Your task to perform on an android device: add a contact in the contacts app Image 0: 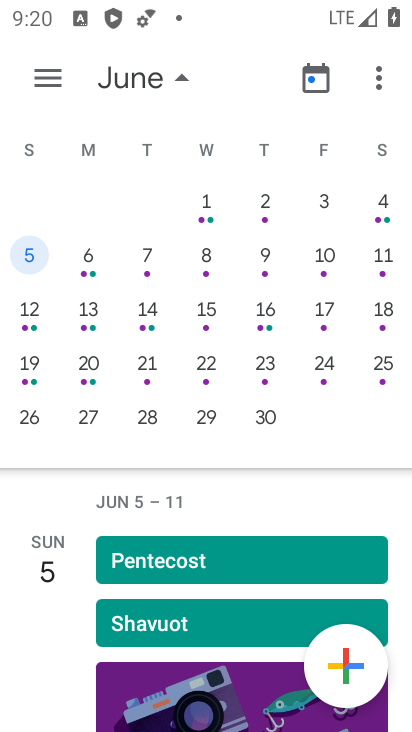
Step 0: press home button
Your task to perform on an android device: add a contact in the contacts app Image 1: 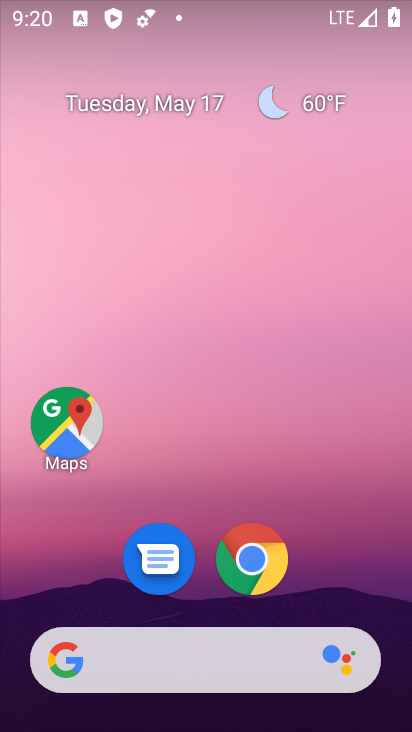
Step 1: drag from (201, 597) to (219, 223)
Your task to perform on an android device: add a contact in the contacts app Image 2: 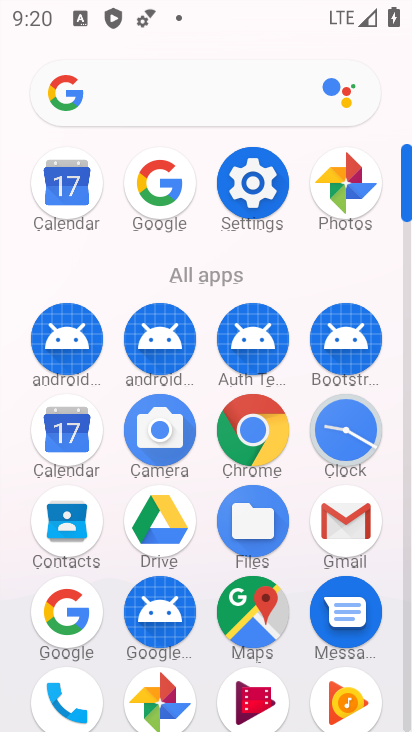
Step 2: click (57, 516)
Your task to perform on an android device: add a contact in the contacts app Image 3: 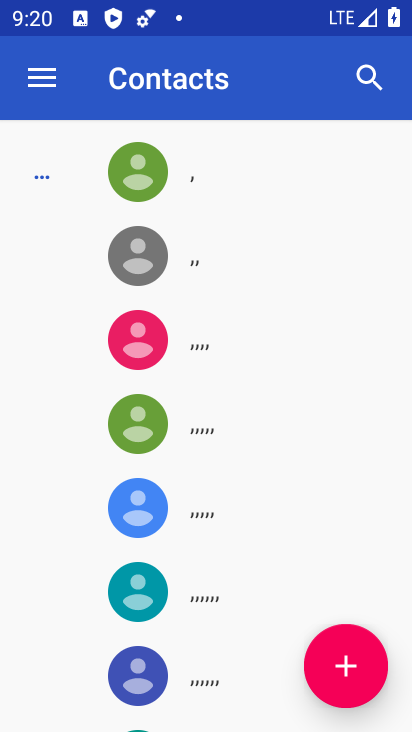
Step 3: click (324, 681)
Your task to perform on an android device: add a contact in the contacts app Image 4: 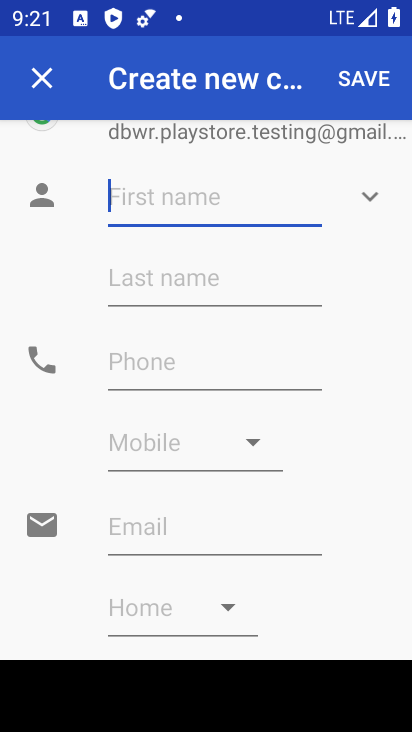
Step 4: type "jvuids"
Your task to perform on an android device: add a contact in the contacts app Image 5: 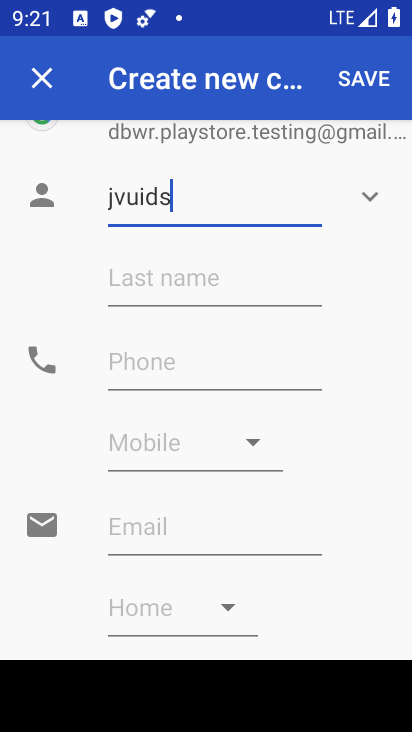
Step 5: click (239, 381)
Your task to perform on an android device: add a contact in the contacts app Image 6: 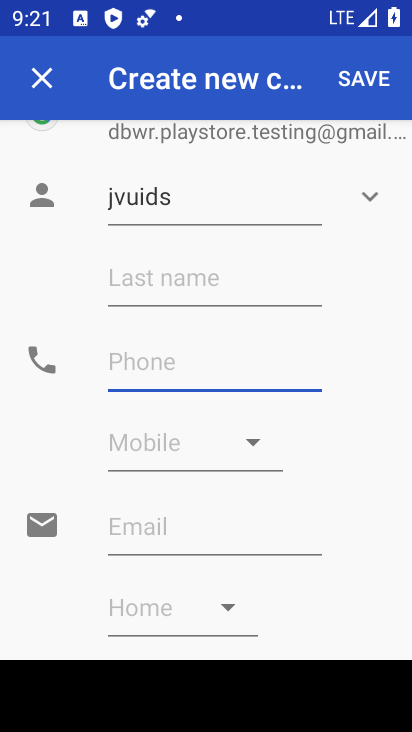
Step 6: type "94789438946"
Your task to perform on an android device: add a contact in the contacts app Image 7: 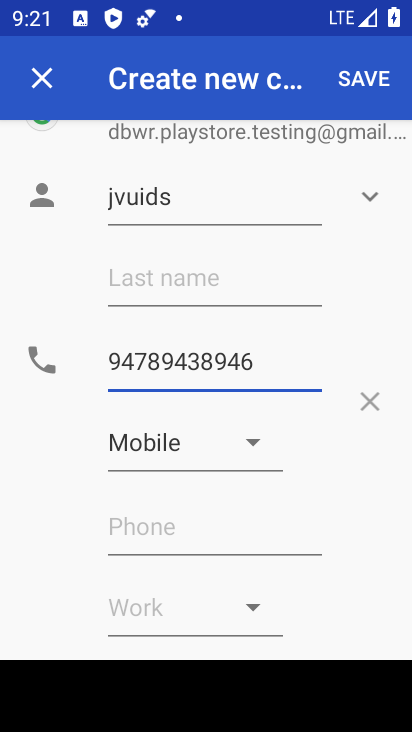
Step 7: click (369, 71)
Your task to perform on an android device: add a contact in the contacts app Image 8: 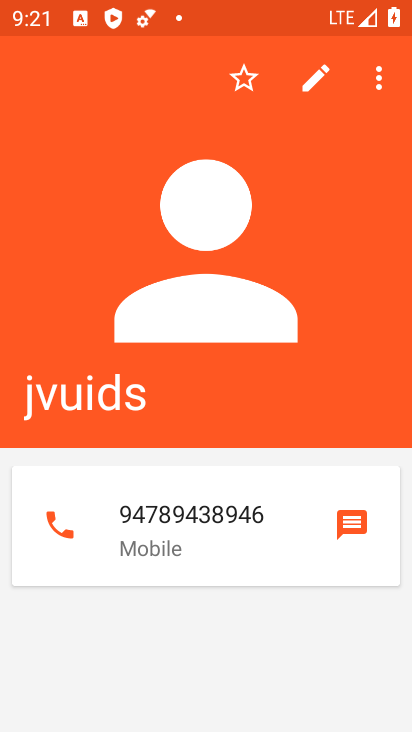
Step 8: task complete